Your task to perform on an android device: Open calendar and show me the fourth week of next month Image 0: 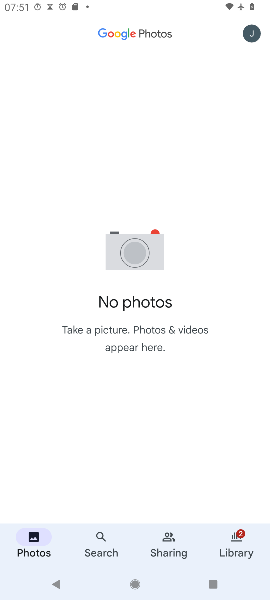
Step 0: press home button
Your task to perform on an android device: Open calendar and show me the fourth week of next month Image 1: 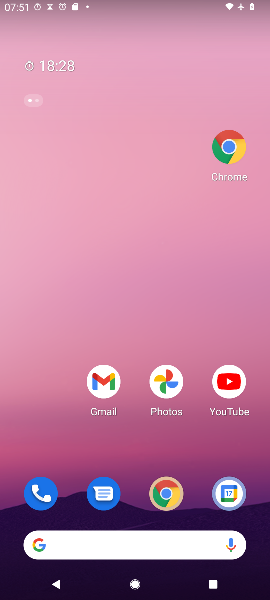
Step 1: drag from (44, 420) to (89, 69)
Your task to perform on an android device: Open calendar and show me the fourth week of next month Image 2: 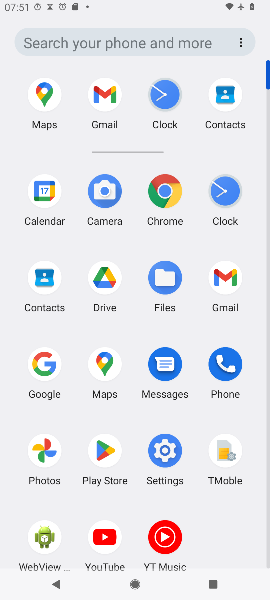
Step 2: click (38, 192)
Your task to perform on an android device: Open calendar and show me the fourth week of next month Image 3: 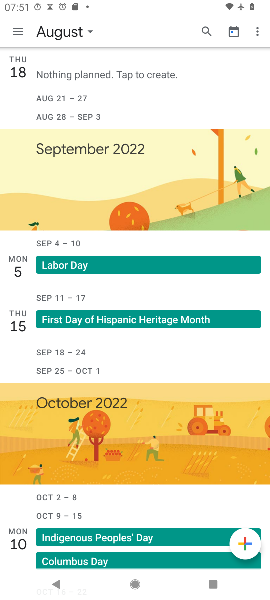
Step 3: click (8, 30)
Your task to perform on an android device: Open calendar and show me the fourth week of next month Image 4: 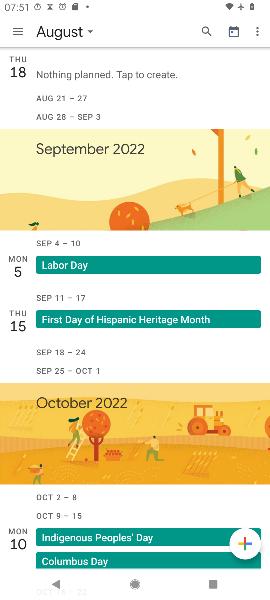
Step 4: click (12, 28)
Your task to perform on an android device: Open calendar and show me the fourth week of next month Image 5: 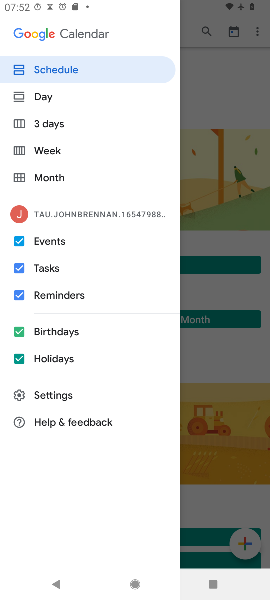
Step 5: click (57, 168)
Your task to perform on an android device: Open calendar and show me the fourth week of next month Image 6: 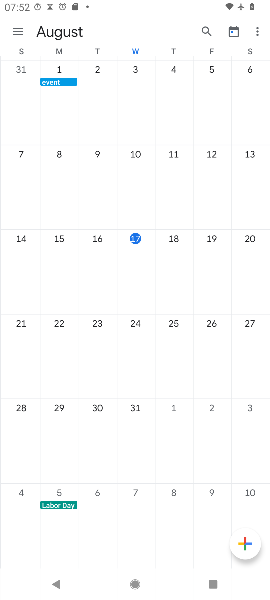
Step 6: task complete